Your task to perform on an android device: allow notifications from all sites in the chrome app Image 0: 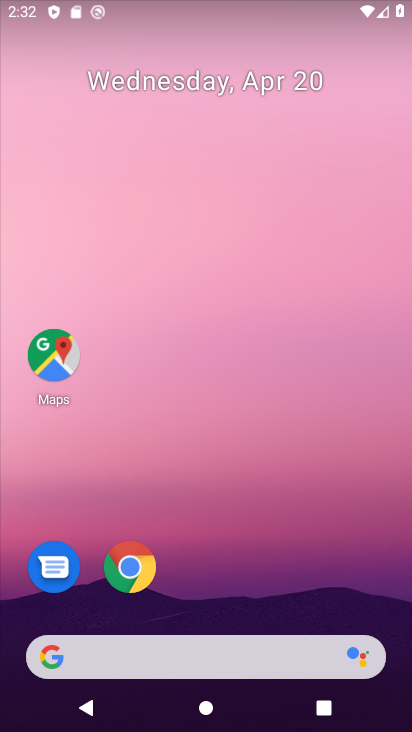
Step 0: drag from (238, 592) to (201, 197)
Your task to perform on an android device: allow notifications from all sites in the chrome app Image 1: 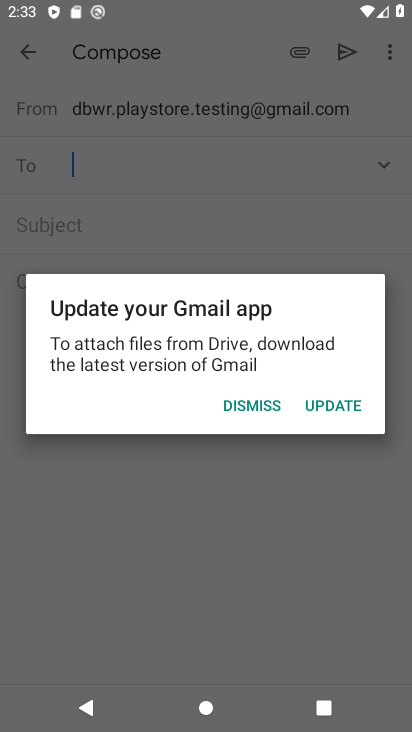
Step 1: click (353, 139)
Your task to perform on an android device: allow notifications from all sites in the chrome app Image 2: 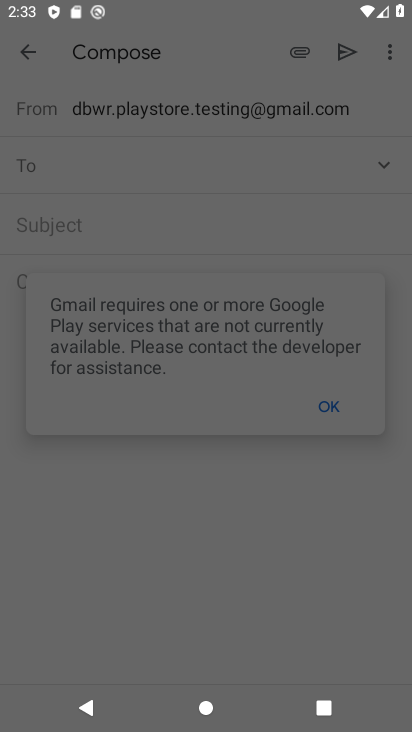
Step 2: press home button
Your task to perform on an android device: allow notifications from all sites in the chrome app Image 3: 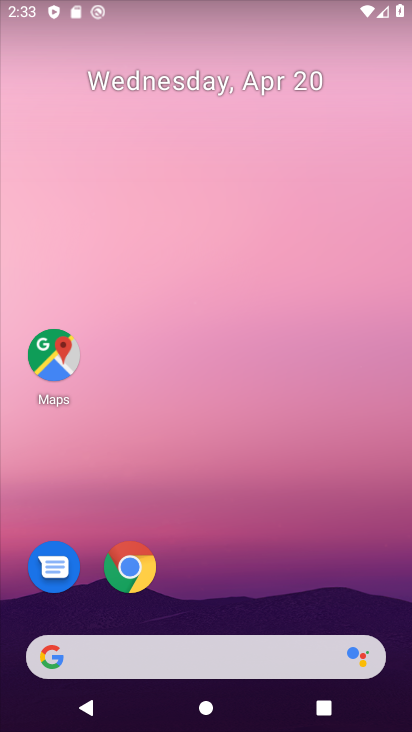
Step 3: click (132, 578)
Your task to perform on an android device: allow notifications from all sites in the chrome app Image 4: 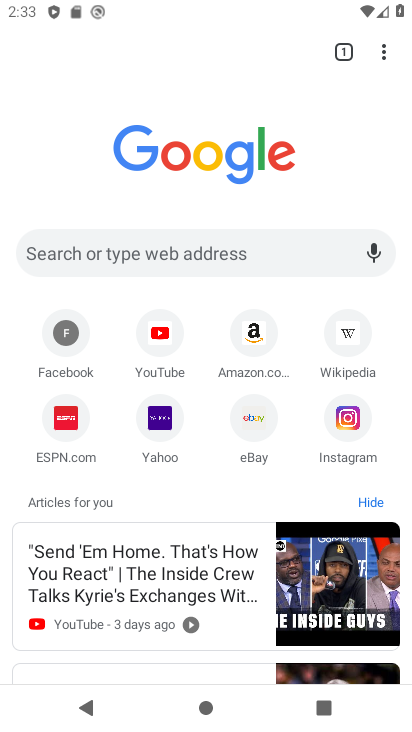
Step 4: drag from (379, 54) to (214, 429)
Your task to perform on an android device: allow notifications from all sites in the chrome app Image 5: 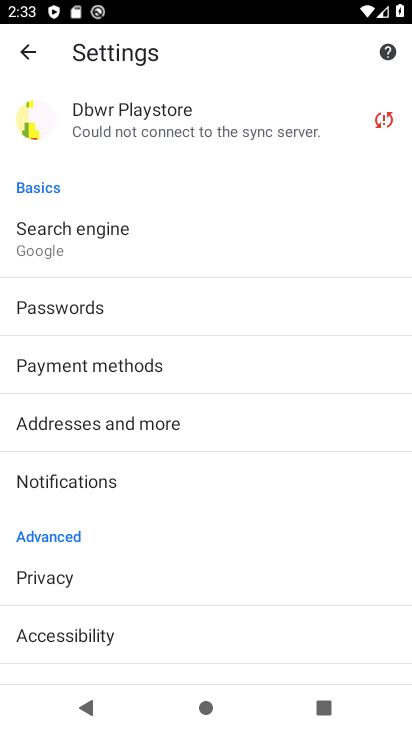
Step 5: drag from (140, 618) to (156, 297)
Your task to perform on an android device: allow notifications from all sites in the chrome app Image 6: 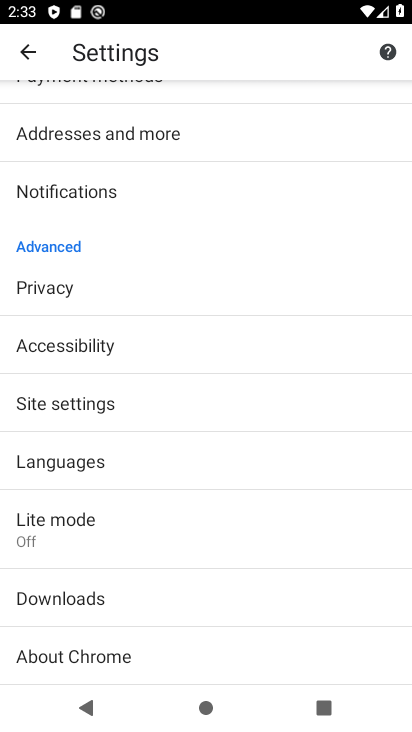
Step 6: click (132, 419)
Your task to perform on an android device: allow notifications from all sites in the chrome app Image 7: 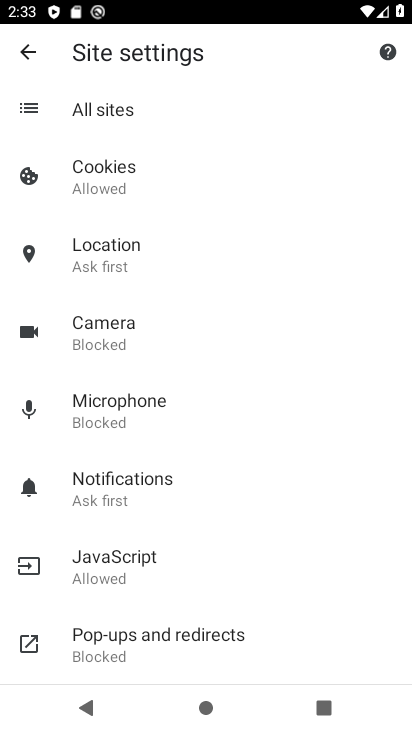
Step 7: click (137, 111)
Your task to perform on an android device: allow notifications from all sites in the chrome app Image 8: 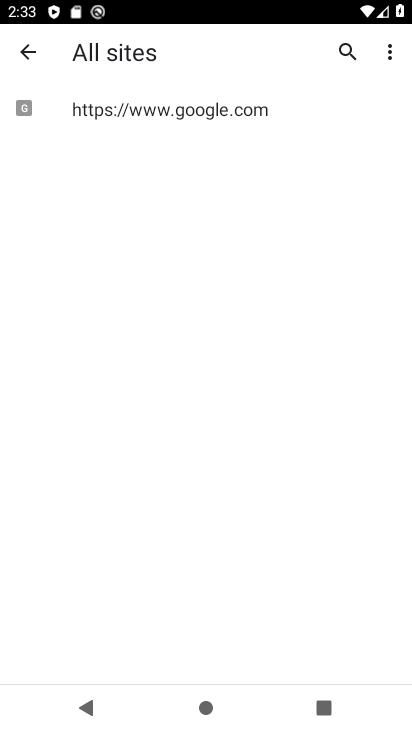
Step 8: click (137, 111)
Your task to perform on an android device: allow notifications from all sites in the chrome app Image 9: 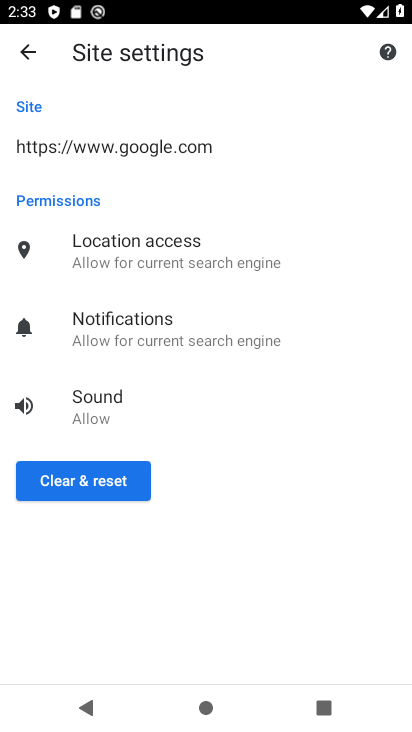
Step 9: click (133, 329)
Your task to perform on an android device: allow notifications from all sites in the chrome app Image 10: 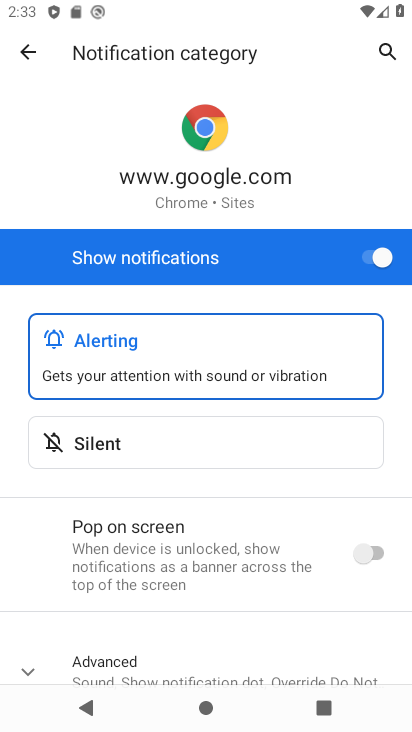
Step 10: task complete